Your task to perform on an android device: Open battery settings Image 0: 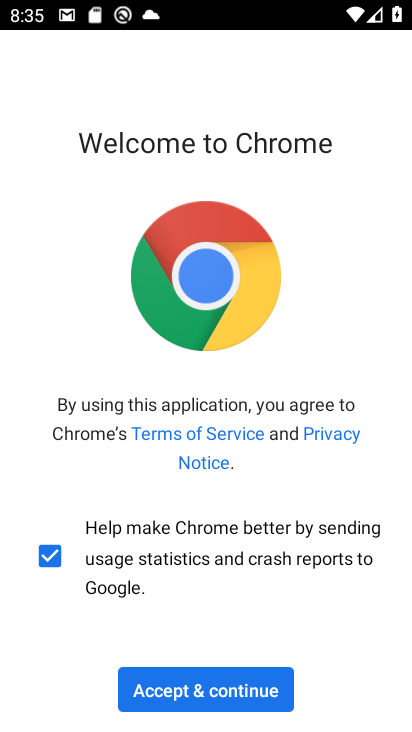
Step 0: press home button
Your task to perform on an android device: Open battery settings Image 1: 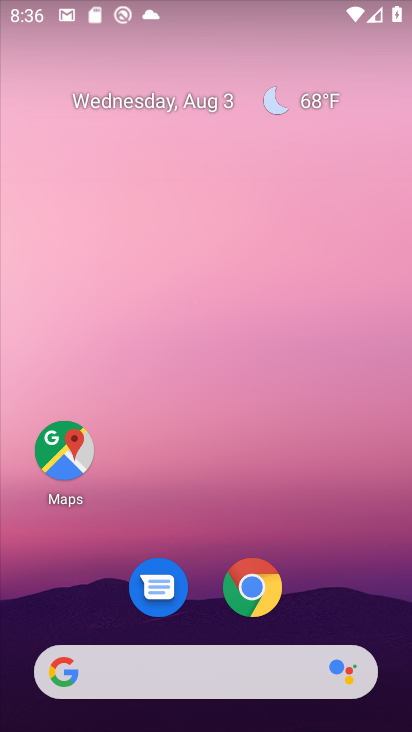
Step 1: drag from (326, 627) to (317, 20)
Your task to perform on an android device: Open battery settings Image 2: 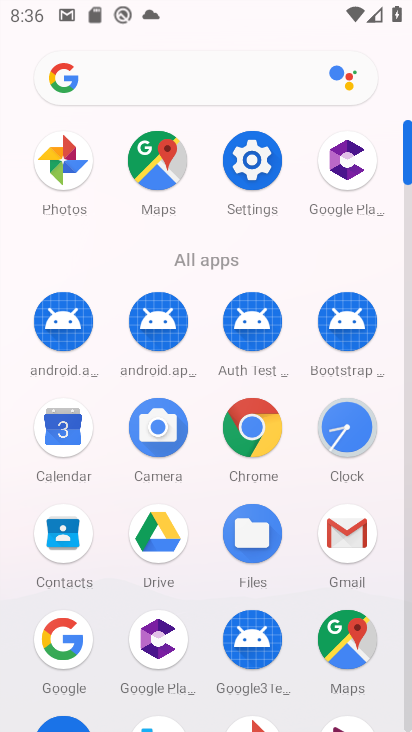
Step 2: drag from (214, 598) to (244, 215)
Your task to perform on an android device: Open battery settings Image 3: 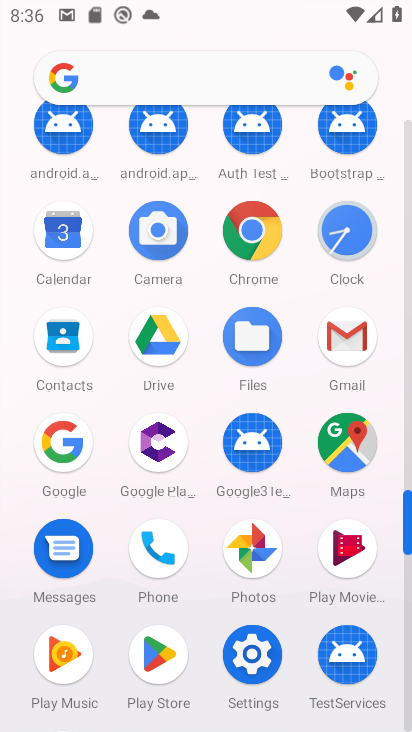
Step 3: click (262, 647)
Your task to perform on an android device: Open battery settings Image 4: 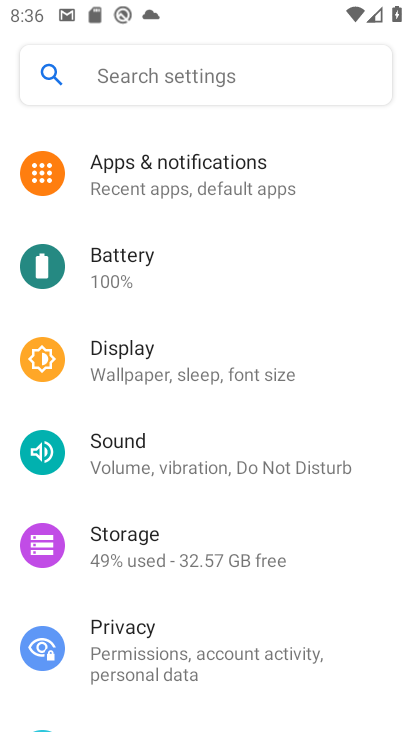
Step 4: click (103, 254)
Your task to perform on an android device: Open battery settings Image 5: 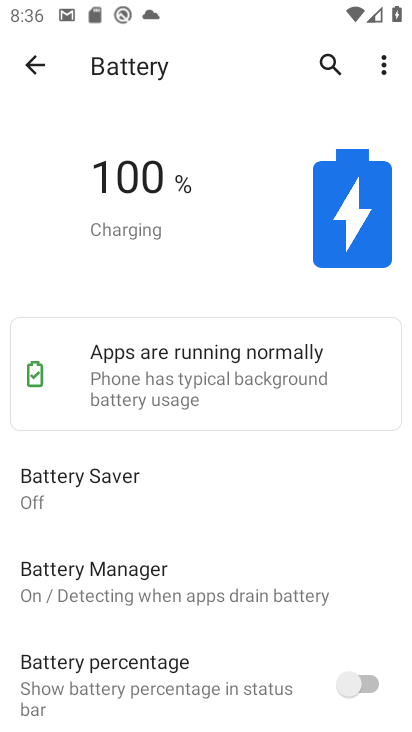
Step 5: task complete